Your task to perform on an android device: Go to network settings Image 0: 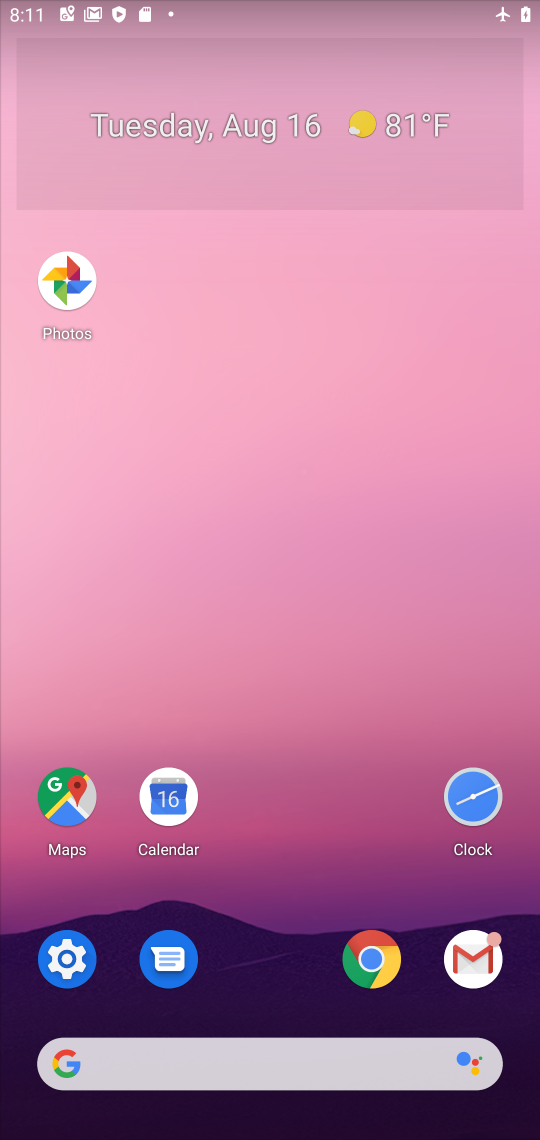
Step 0: click (374, 964)
Your task to perform on an android device: Go to network settings Image 1: 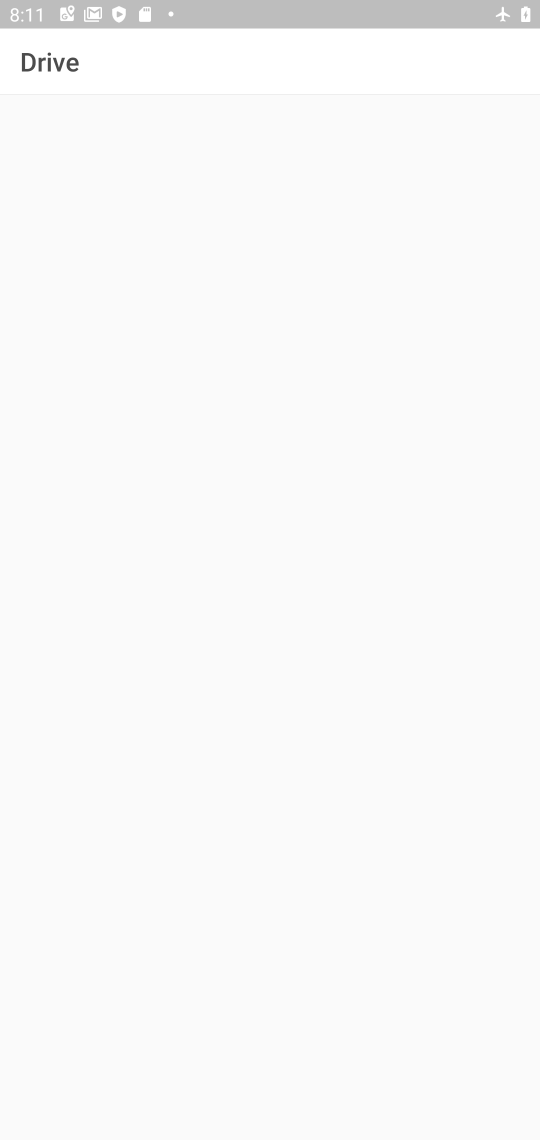
Step 1: press home button
Your task to perform on an android device: Go to network settings Image 2: 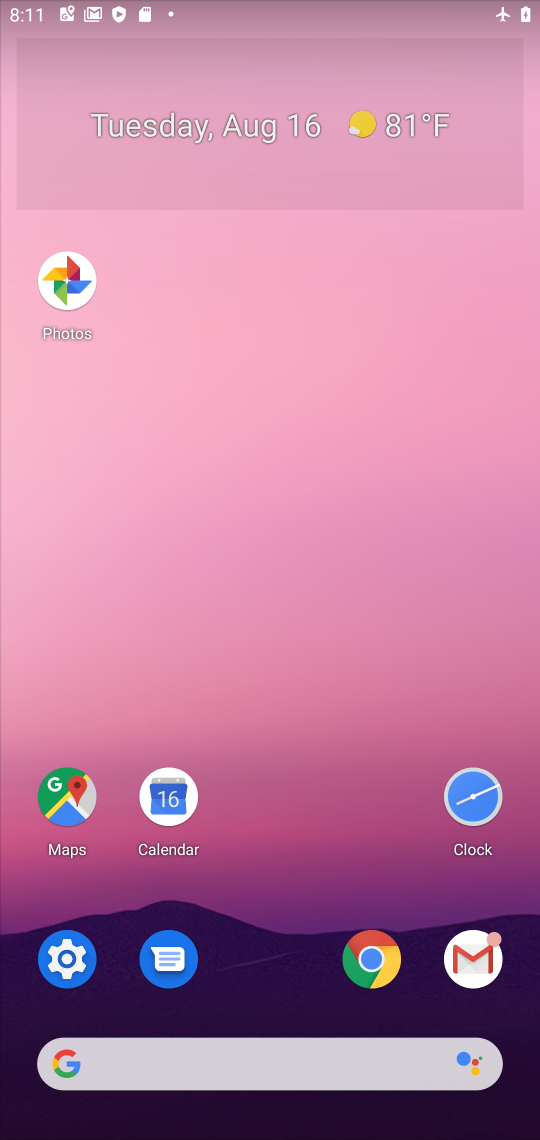
Step 2: click (64, 961)
Your task to perform on an android device: Go to network settings Image 3: 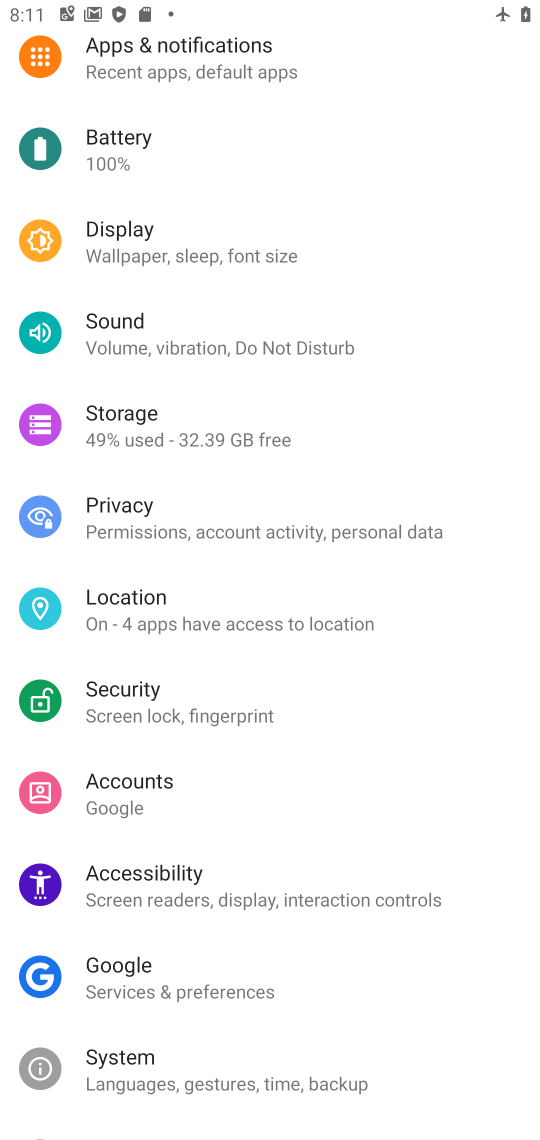
Step 3: drag from (229, 184) to (175, 902)
Your task to perform on an android device: Go to network settings Image 4: 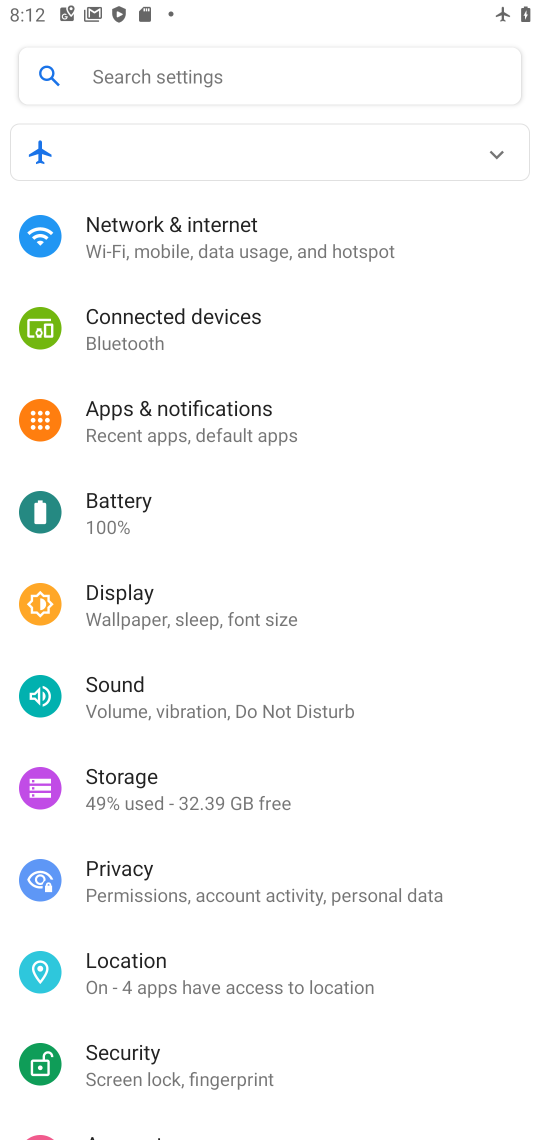
Step 4: click (144, 227)
Your task to perform on an android device: Go to network settings Image 5: 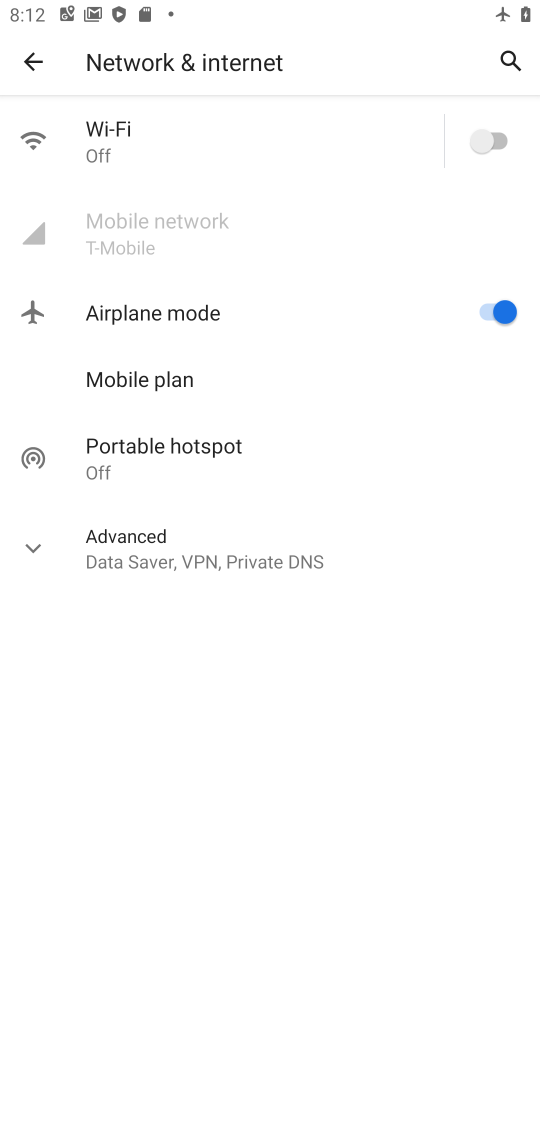
Step 5: task complete